Your task to perform on an android device: Check the settings for the Google Play Store app Image 0: 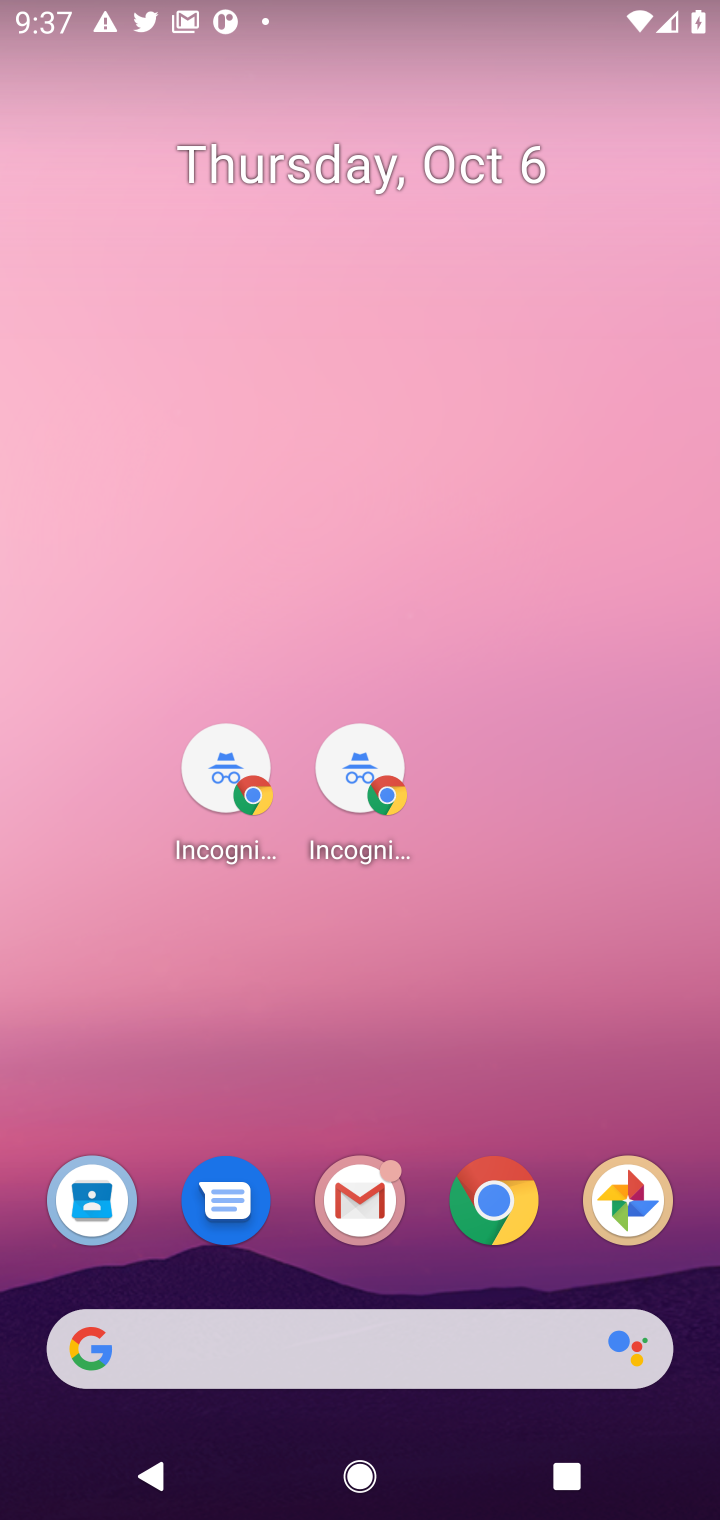
Step 0: click (475, 1206)
Your task to perform on an android device: Check the settings for the Google Play Store app Image 1: 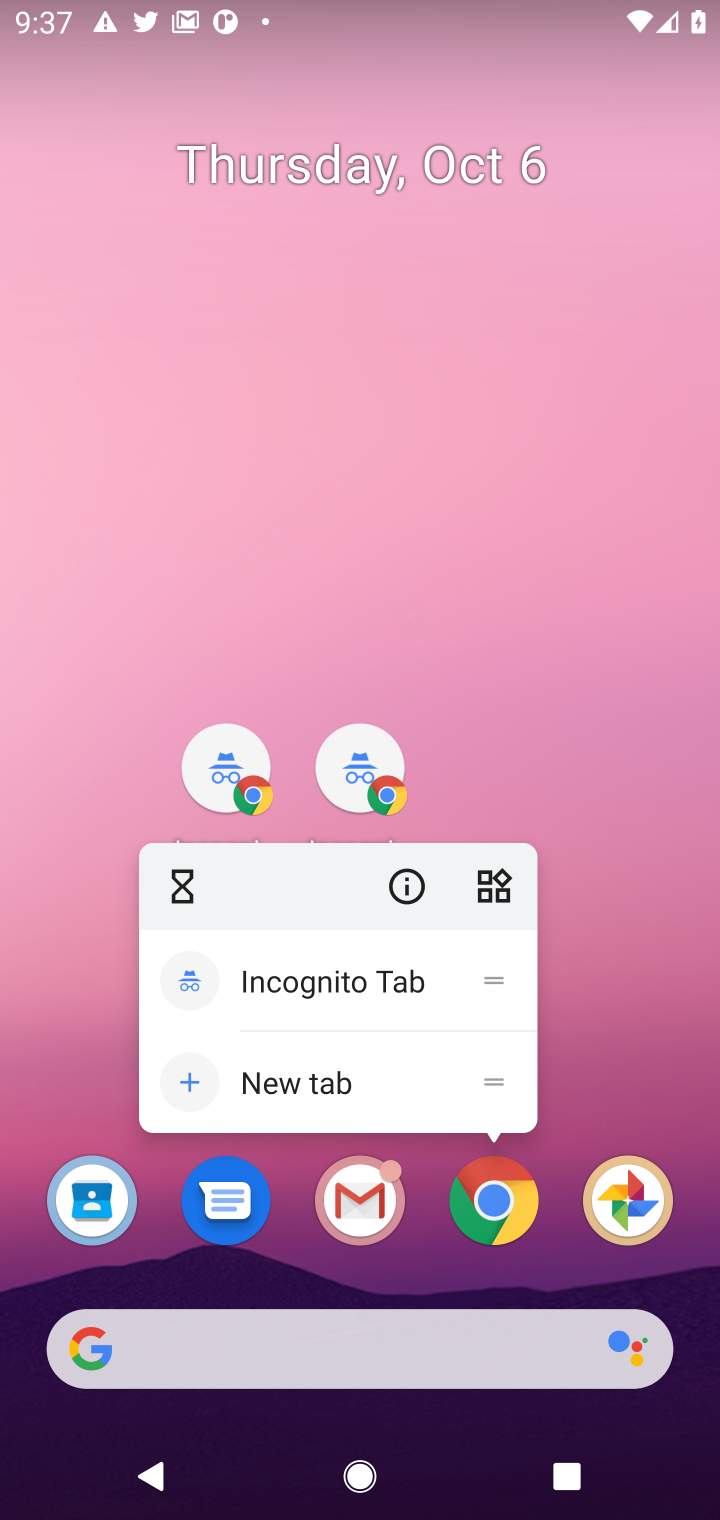
Step 1: click (633, 1051)
Your task to perform on an android device: Check the settings for the Google Play Store app Image 2: 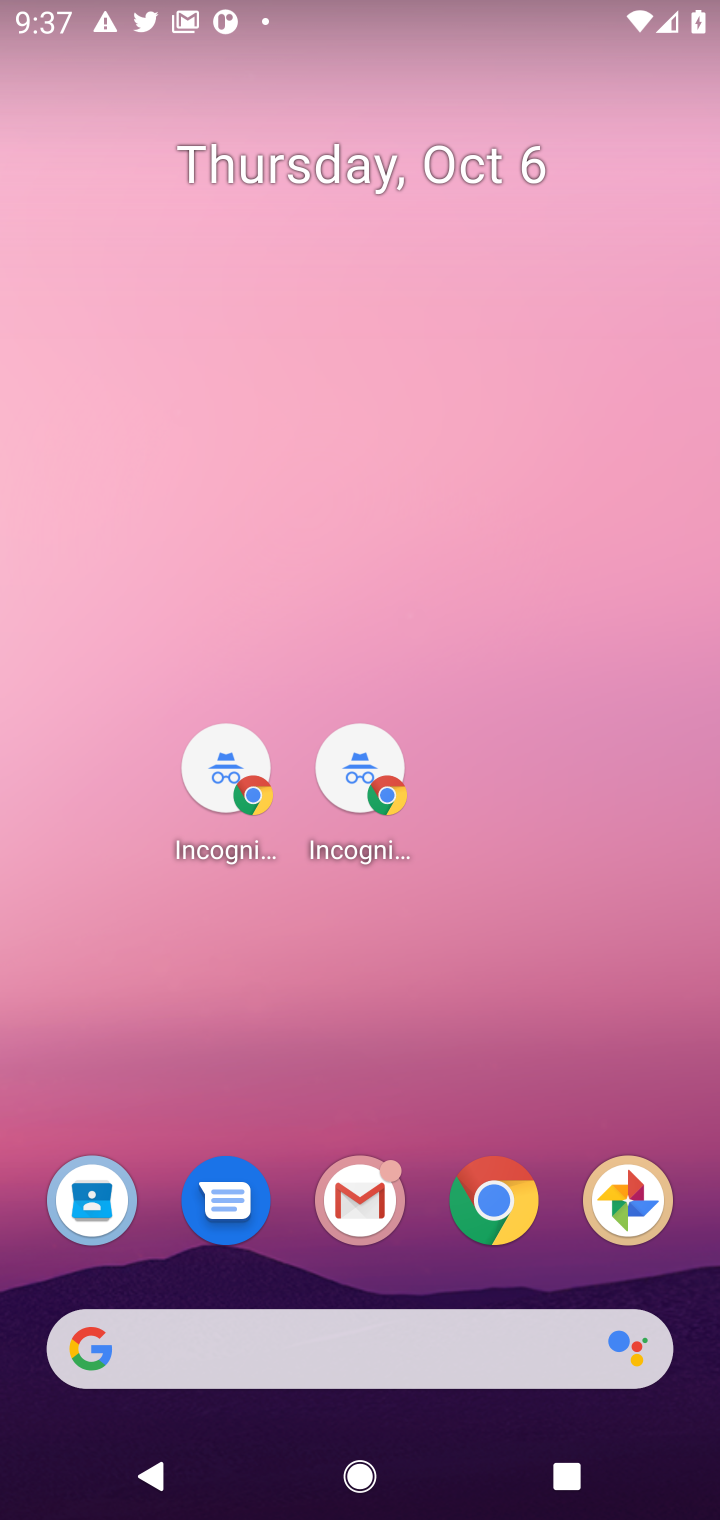
Step 2: drag from (455, 1050) to (640, 281)
Your task to perform on an android device: Check the settings for the Google Play Store app Image 3: 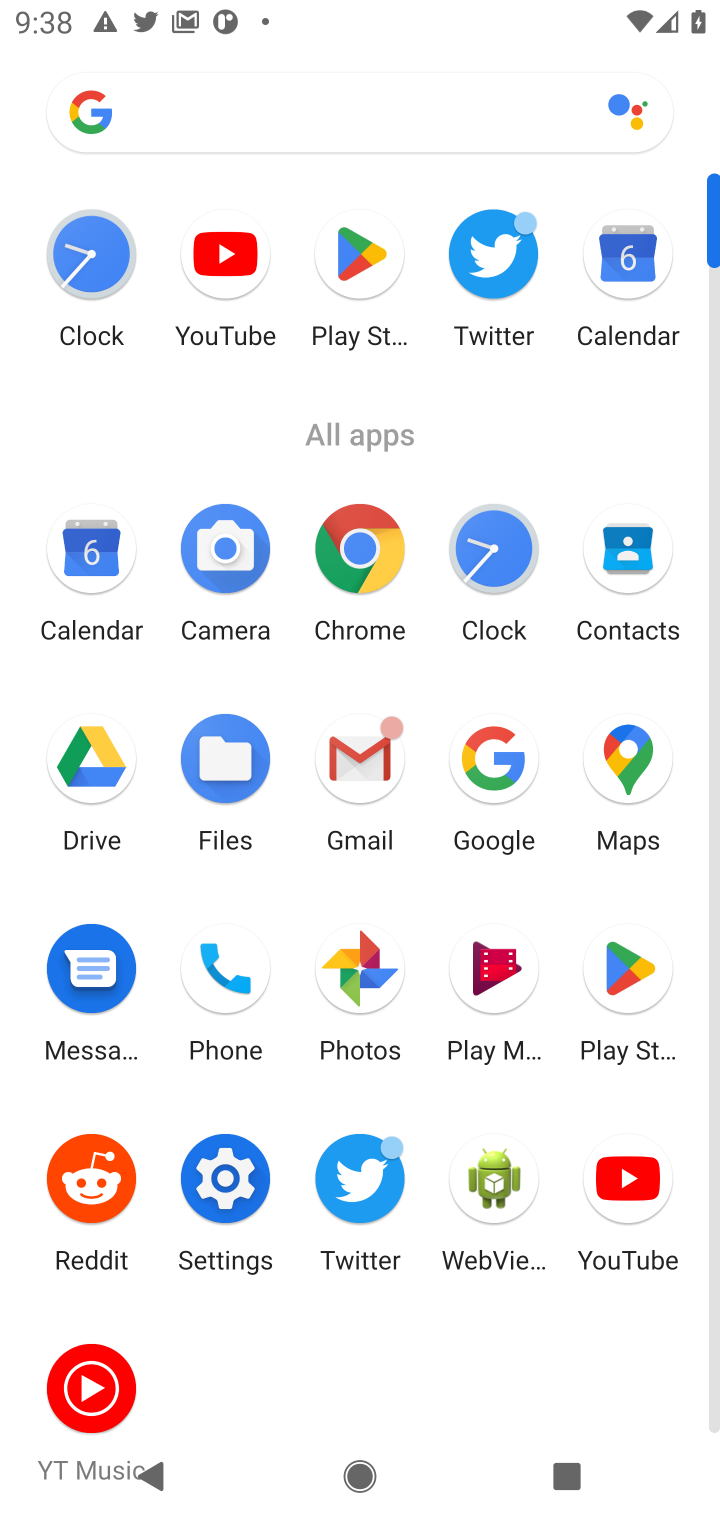
Step 3: click (597, 958)
Your task to perform on an android device: Check the settings for the Google Play Store app Image 4: 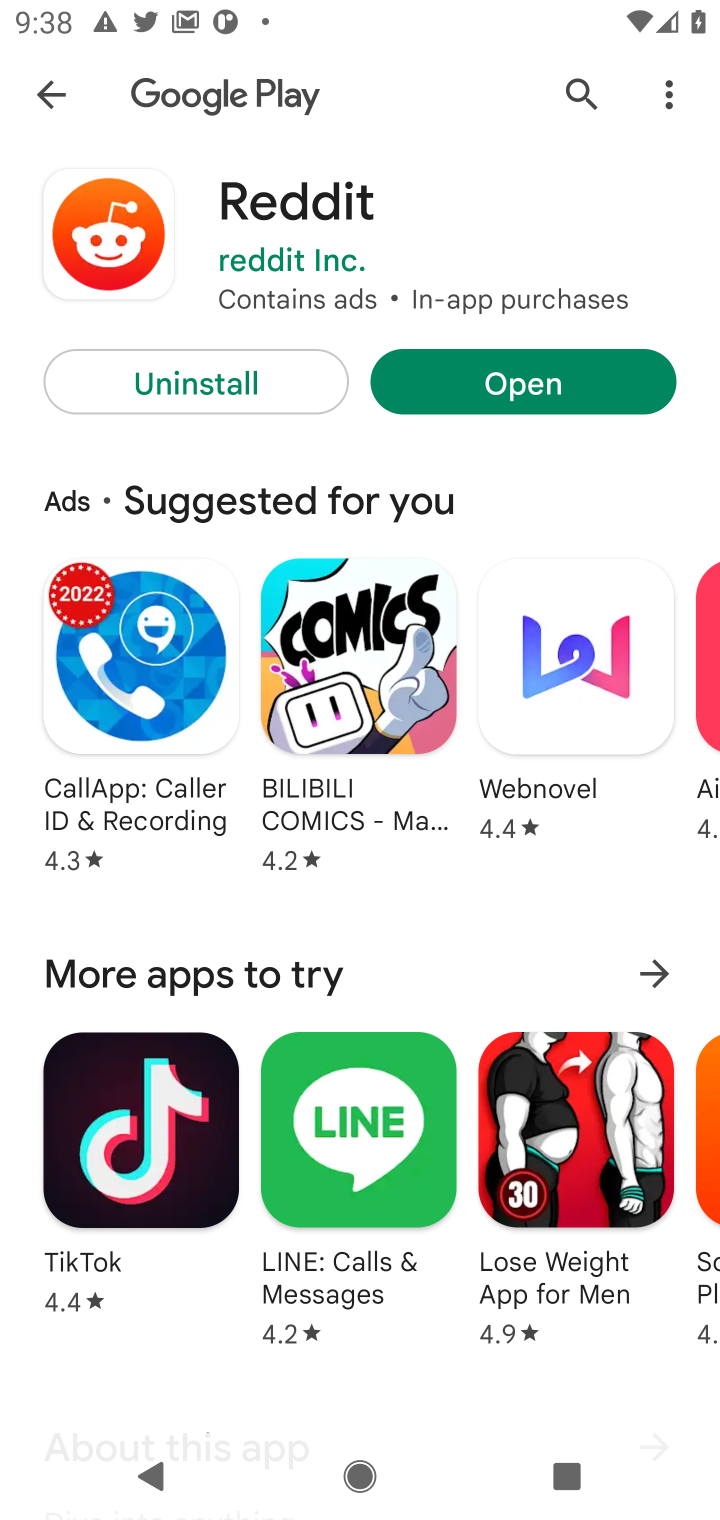
Step 4: press back button
Your task to perform on an android device: Check the settings for the Google Play Store app Image 5: 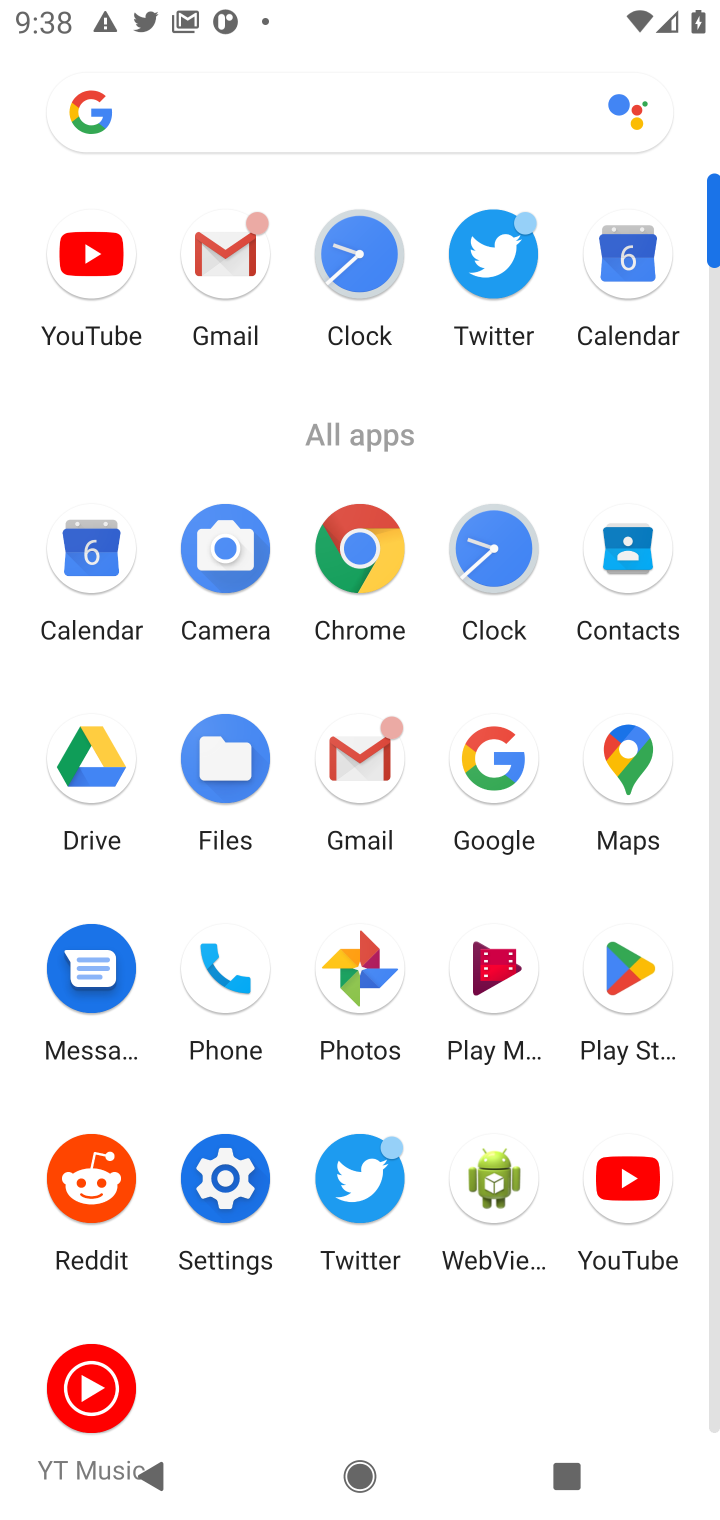
Step 5: click (622, 966)
Your task to perform on an android device: Check the settings for the Google Play Store app Image 6: 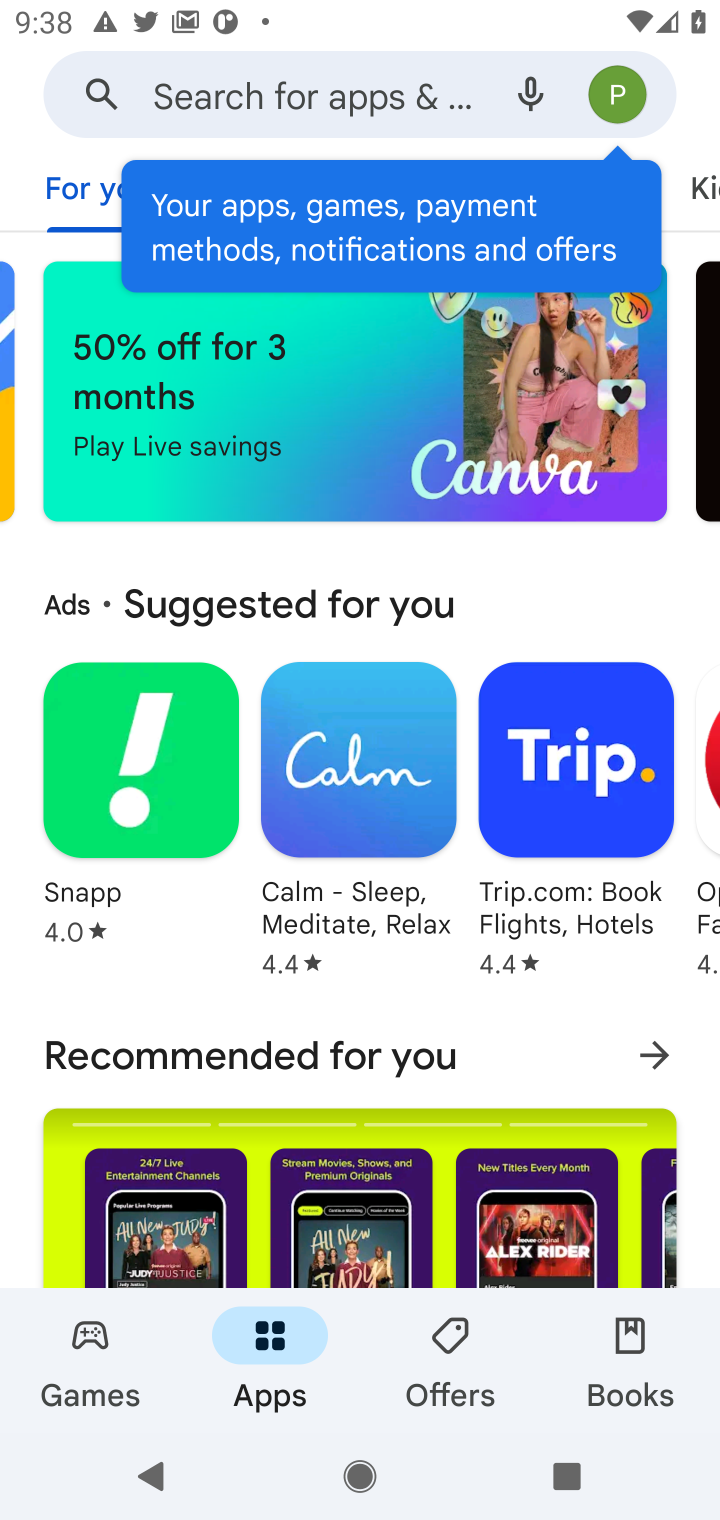
Step 6: click (239, 1328)
Your task to perform on an android device: Check the settings for the Google Play Store app Image 7: 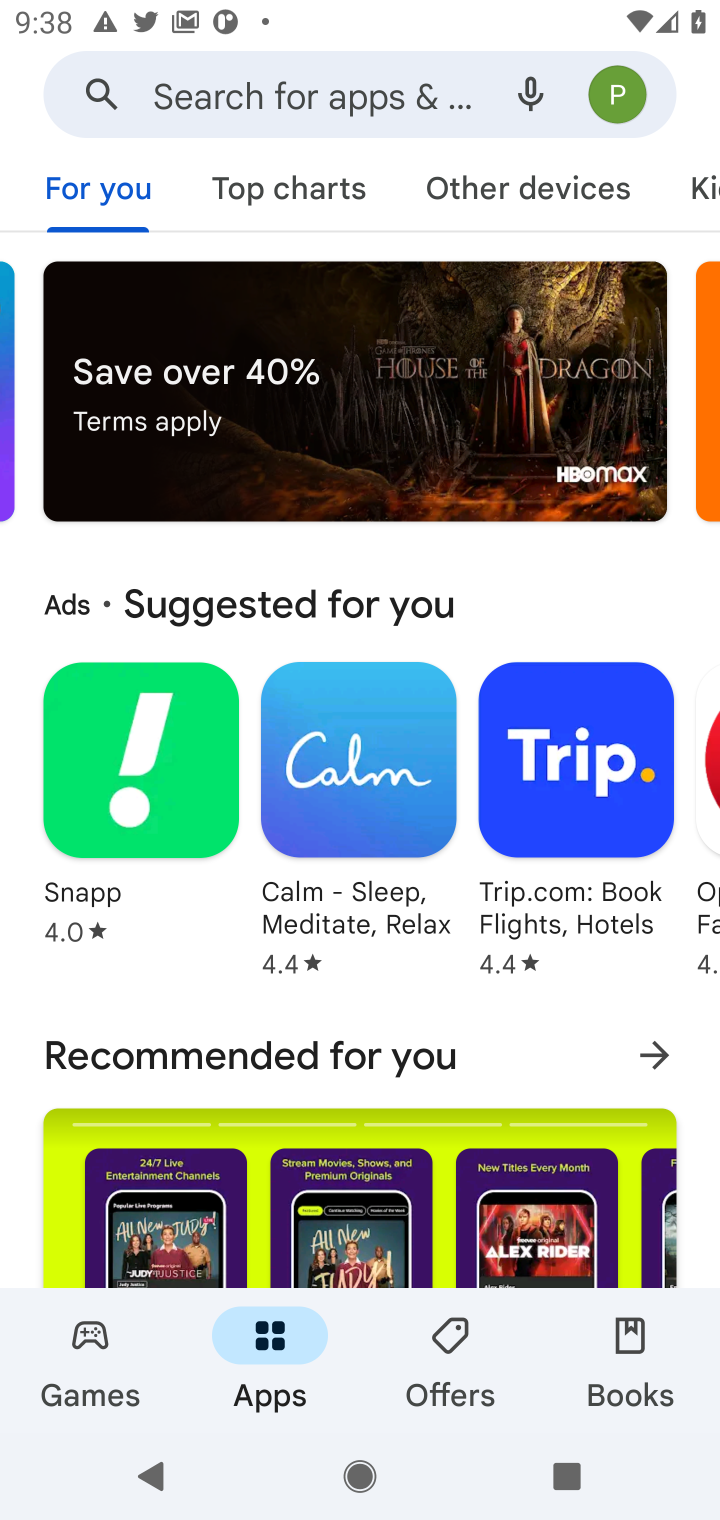
Step 7: click (247, 1314)
Your task to perform on an android device: Check the settings for the Google Play Store app Image 8: 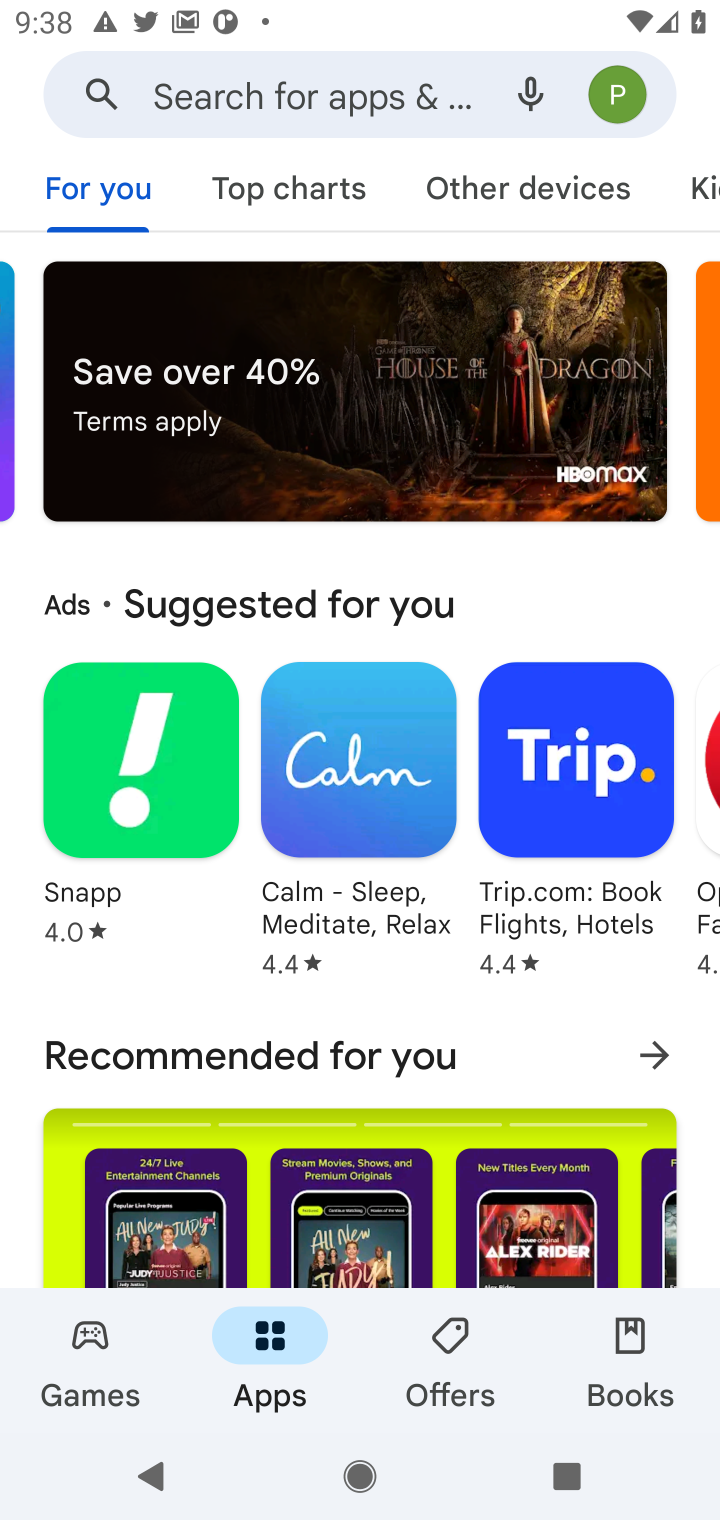
Step 8: click (601, 88)
Your task to perform on an android device: Check the settings for the Google Play Store app Image 9: 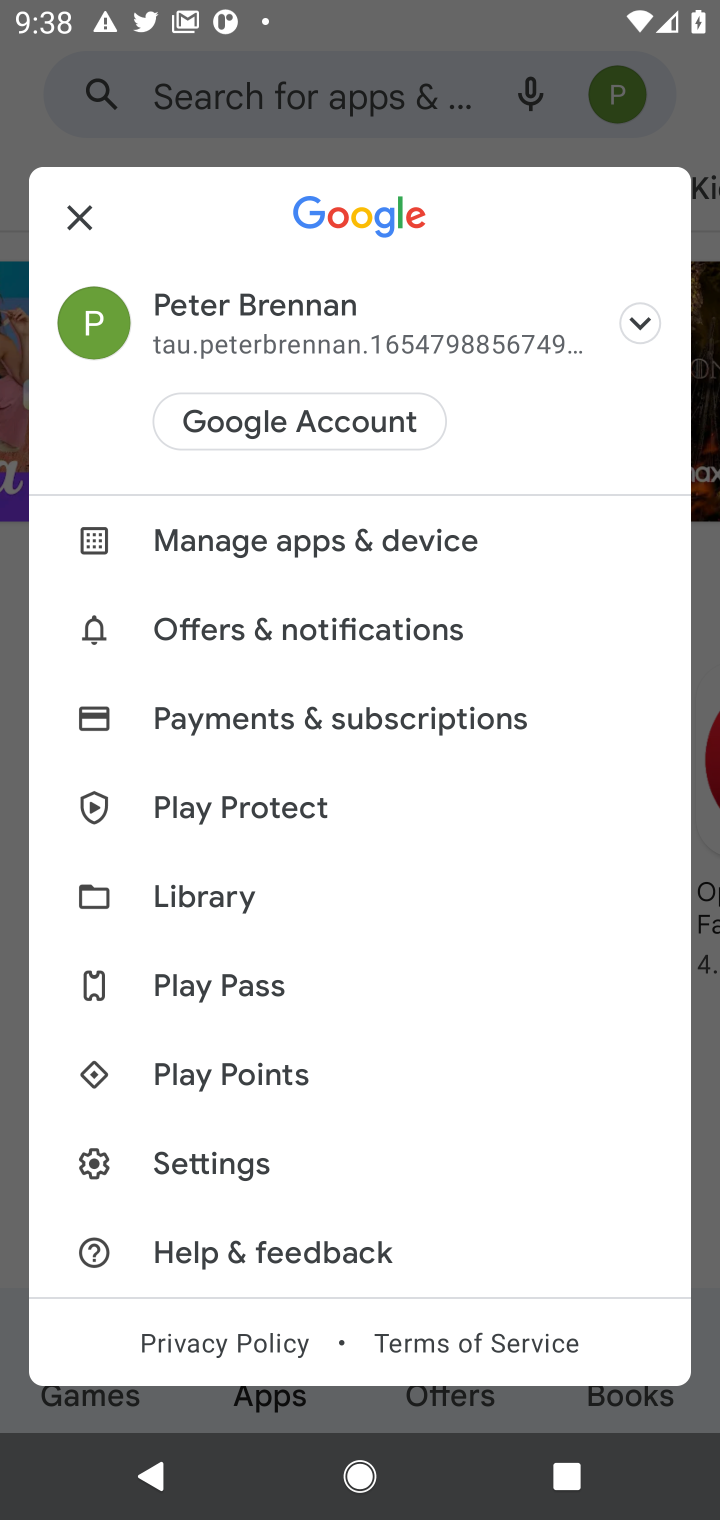
Step 9: click (169, 1160)
Your task to perform on an android device: Check the settings for the Google Play Store app Image 10: 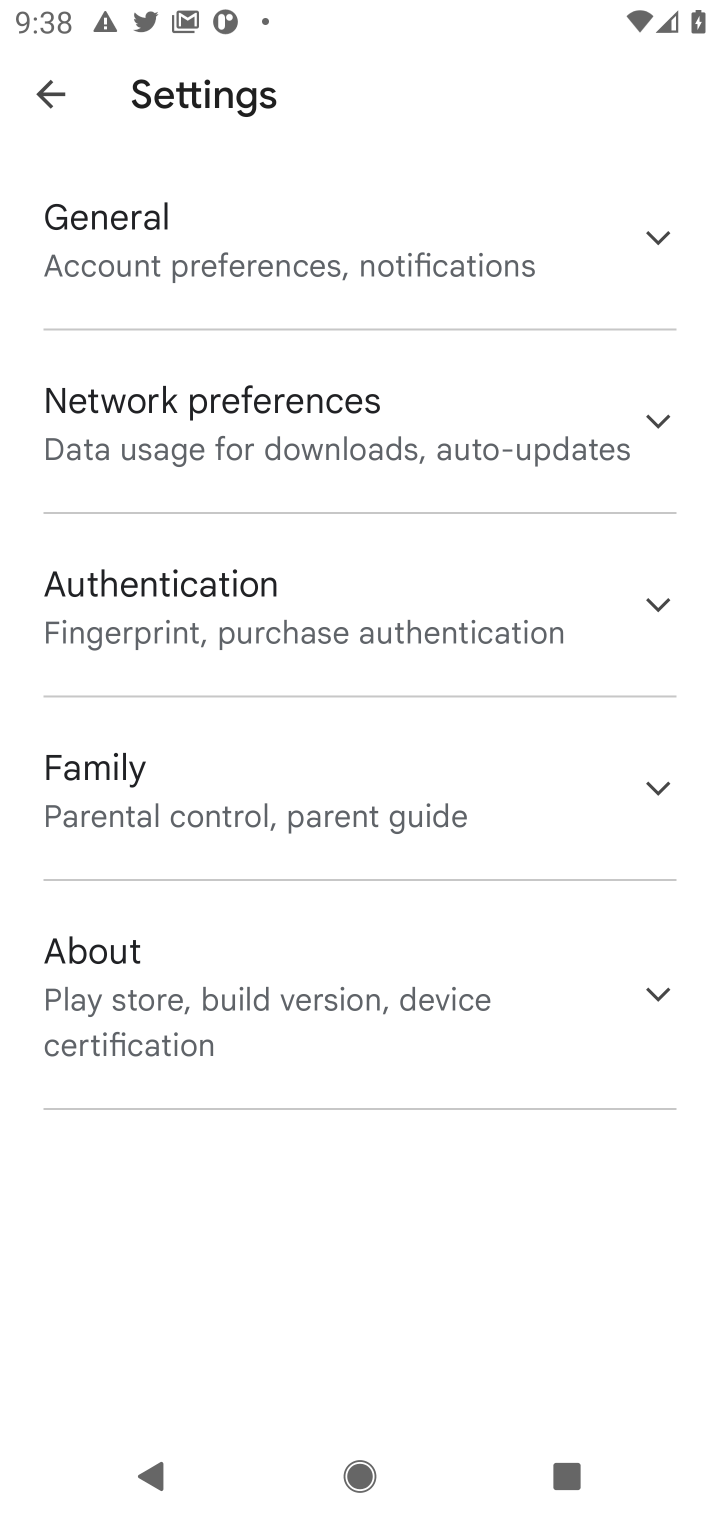
Step 10: task complete